Your task to perform on an android device: Open the calendar app, open the side menu, and click the "Day" option Image 0: 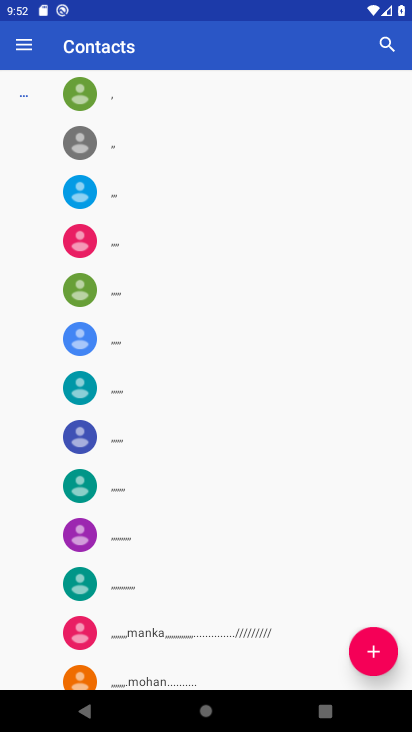
Step 0: press back button
Your task to perform on an android device: Open the calendar app, open the side menu, and click the "Day" option Image 1: 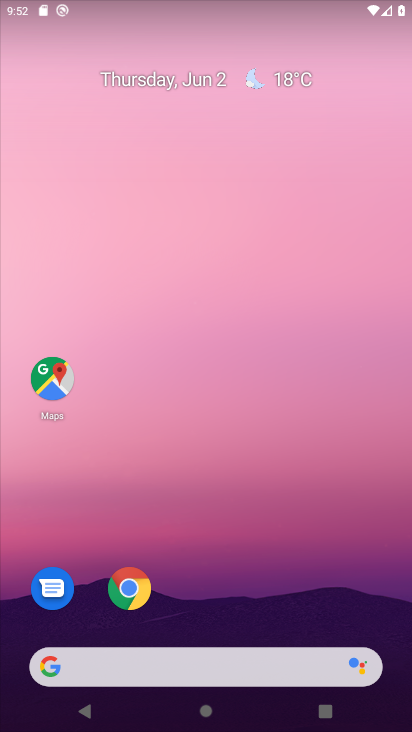
Step 1: drag from (292, 695) to (224, 120)
Your task to perform on an android device: Open the calendar app, open the side menu, and click the "Day" option Image 2: 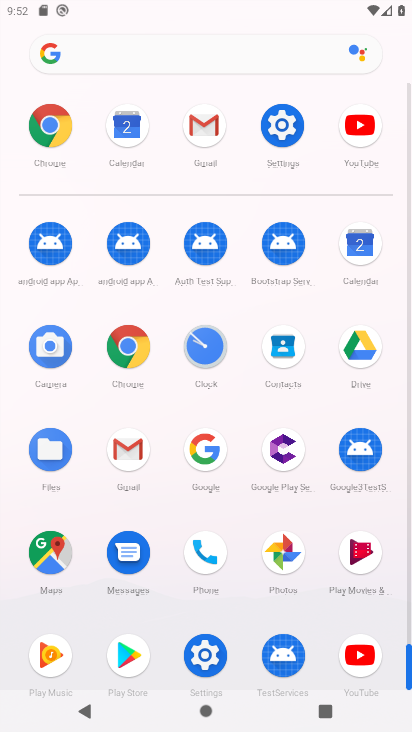
Step 2: click (358, 237)
Your task to perform on an android device: Open the calendar app, open the side menu, and click the "Day" option Image 3: 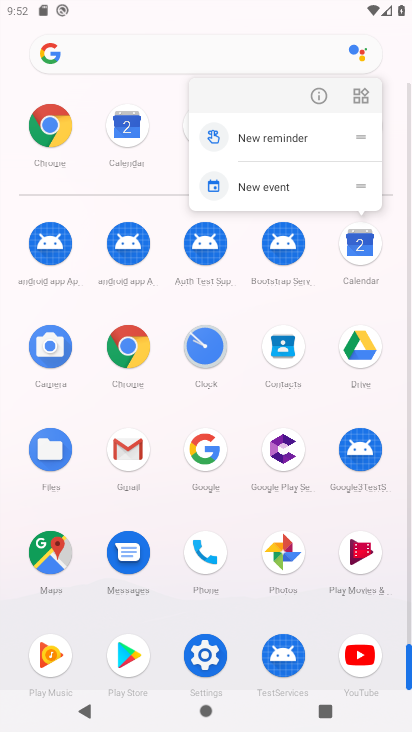
Step 3: click (360, 241)
Your task to perform on an android device: Open the calendar app, open the side menu, and click the "Day" option Image 4: 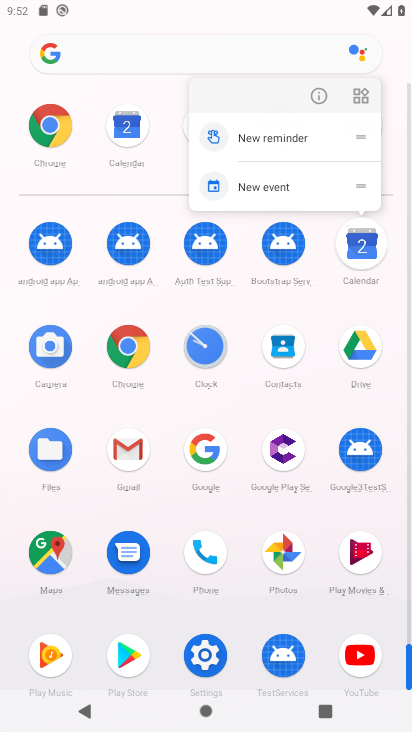
Step 4: click (362, 241)
Your task to perform on an android device: Open the calendar app, open the side menu, and click the "Day" option Image 5: 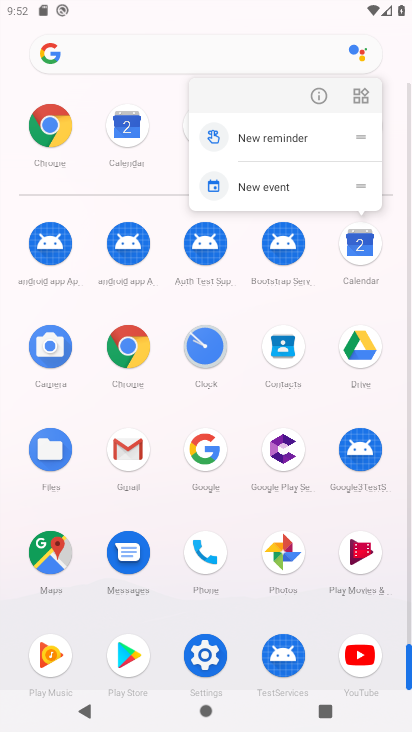
Step 5: click (366, 242)
Your task to perform on an android device: Open the calendar app, open the side menu, and click the "Day" option Image 6: 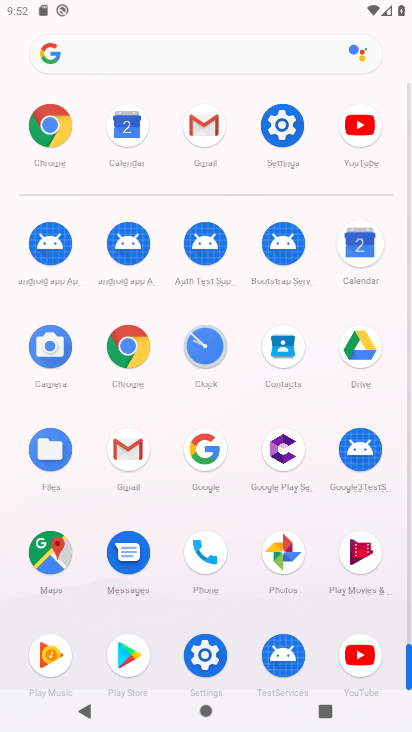
Step 6: click (370, 239)
Your task to perform on an android device: Open the calendar app, open the side menu, and click the "Day" option Image 7: 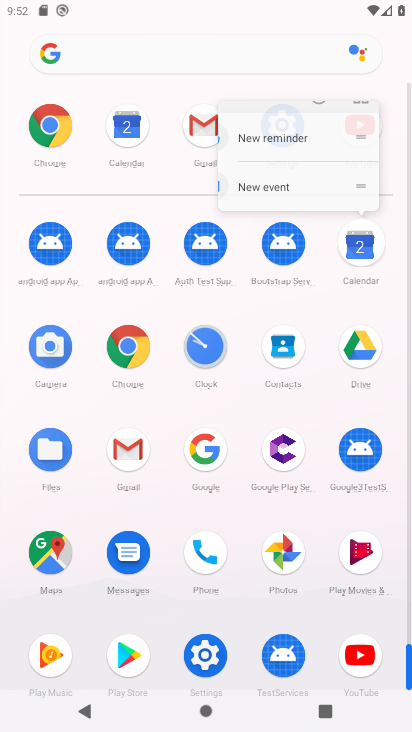
Step 7: click (370, 239)
Your task to perform on an android device: Open the calendar app, open the side menu, and click the "Day" option Image 8: 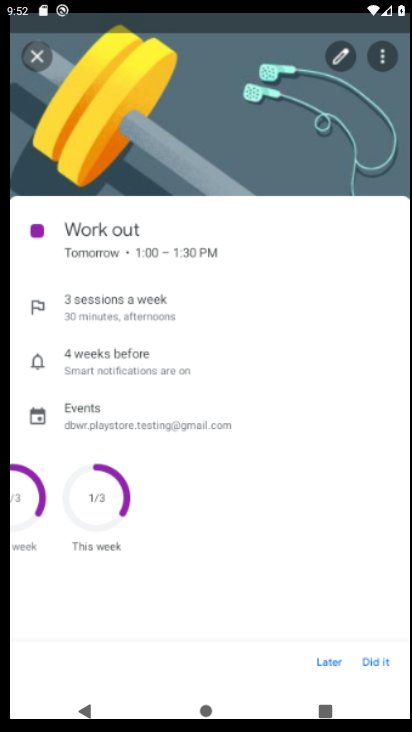
Step 8: click (357, 242)
Your task to perform on an android device: Open the calendar app, open the side menu, and click the "Day" option Image 9: 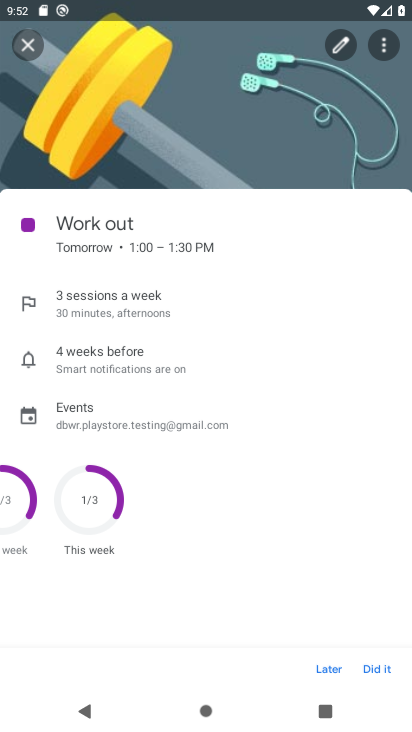
Step 9: click (357, 242)
Your task to perform on an android device: Open the calendar app, open the side menu, and click the "Day" option Image 10: 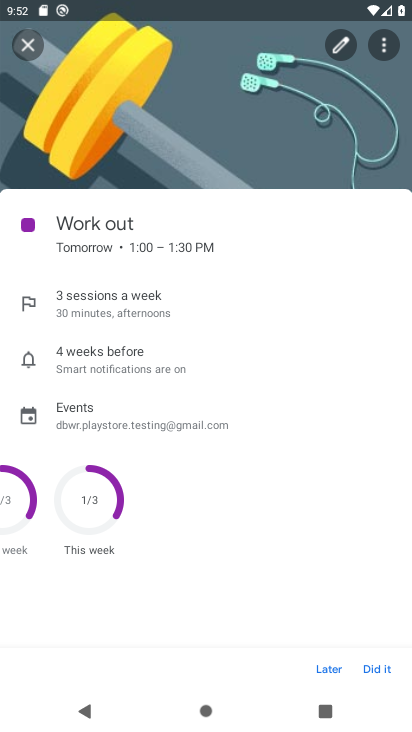
Step 10: click (357, 242)
Your task to perform on an android device: Open the calendar app, open the side menu, and click the "Day" option Image 11: 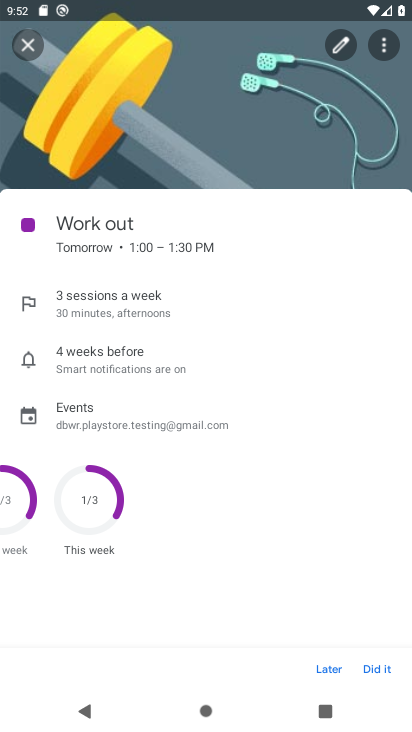
Step 11: press back button
Your task to perform on an android device: Open the calendar app, open the side menu, and click the "Day" option Image 12: 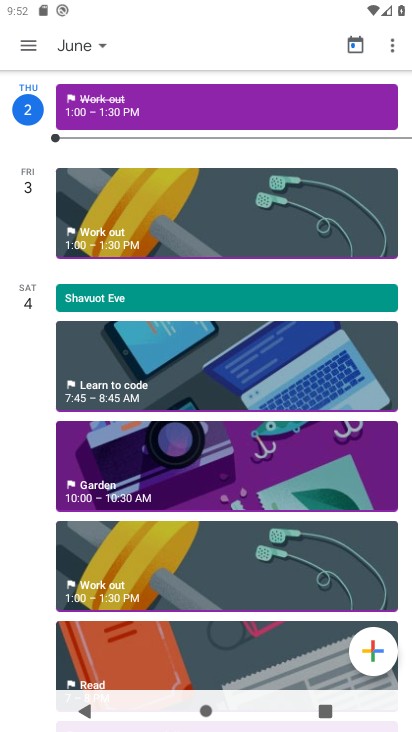
Step 12: click (22, 46)
Your task to perform on an android device: Open the calendar app, open the side menu, and click the "Day" option Image 13: 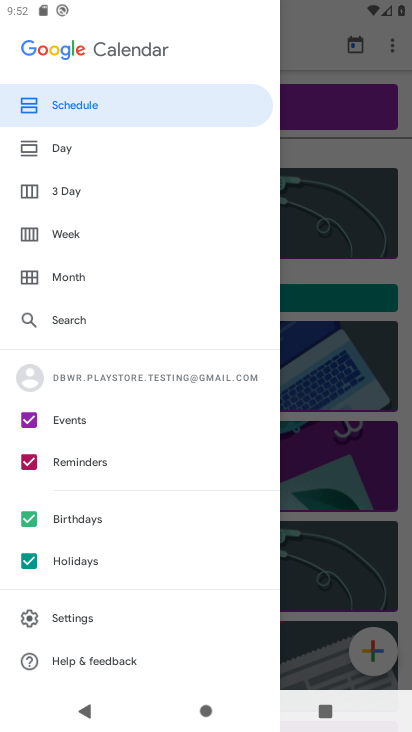
Step 13: click (57, 151)
Your task to perform on an android device: Open the calendar app, open the side menu, and click the "Day" option Image 14: 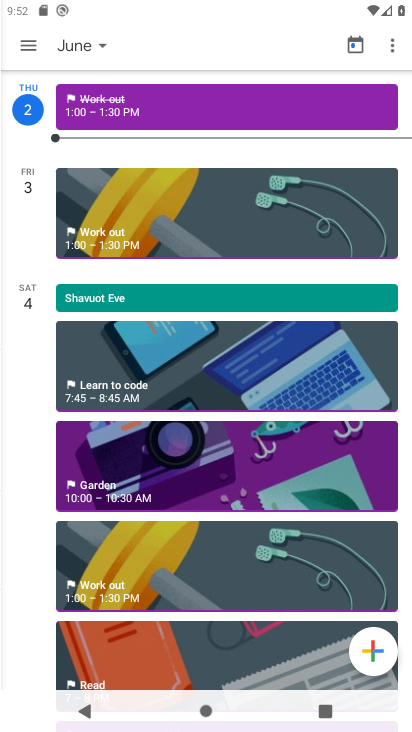
Step 14: click (60, 149)
Your task to perform on an android device: Open the calendar app, open the side menu, and click the "Day" option Image 15: 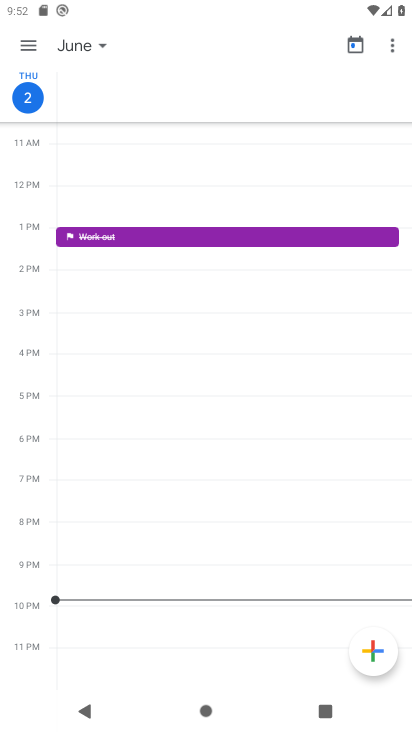
Step 15: task complete